Your task to perform on an android device: uninstall "Mercado Libre" Image 0: 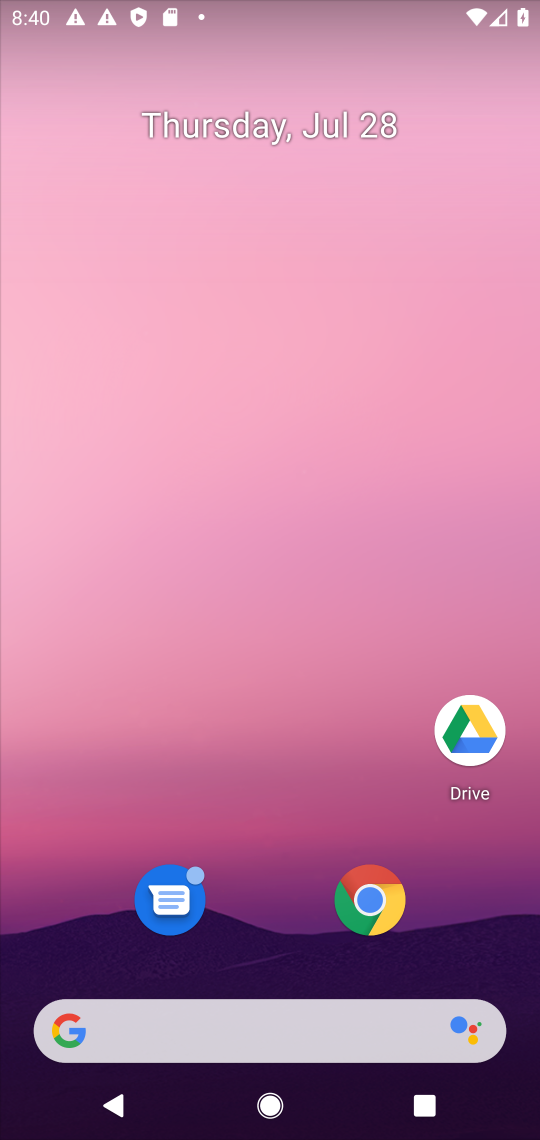
Step 0: drag from (156, 815) to (268, 33)
Your task to perform on an android device: uninstall "Mercado Libre" Image 1: 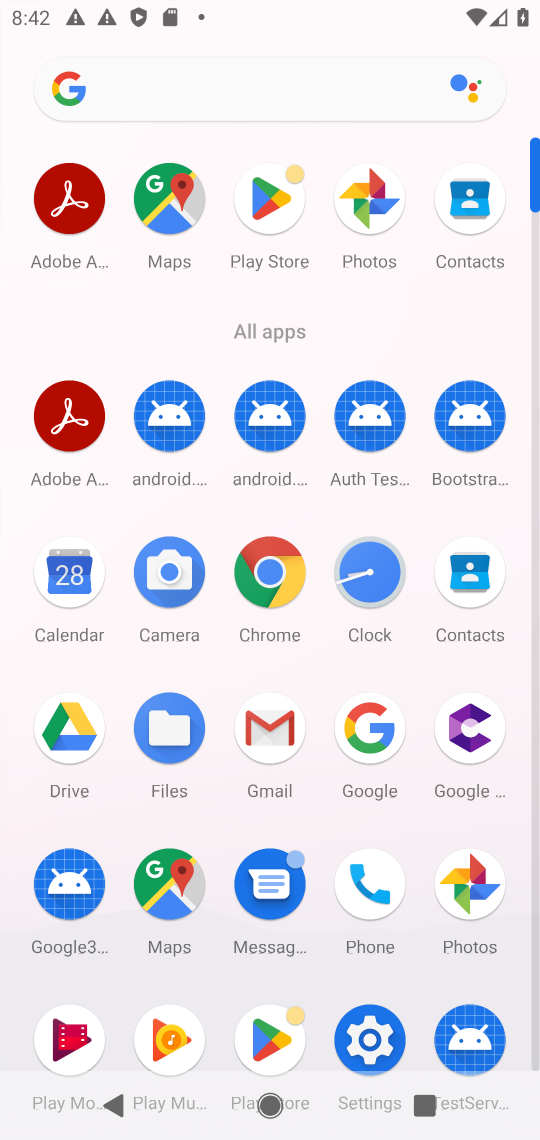
Step 1: task complete